Your task to perform on an android device: turn on improve location accuracy Image 0: 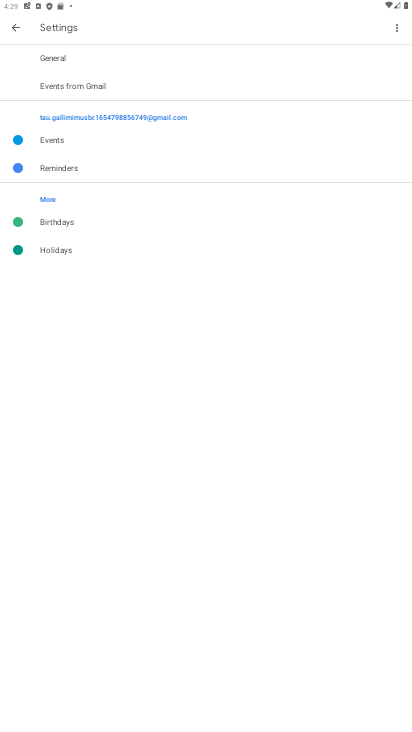
Step 0: press home button
Your task to perform on an android device: turn on improve location accuracy Image 1: 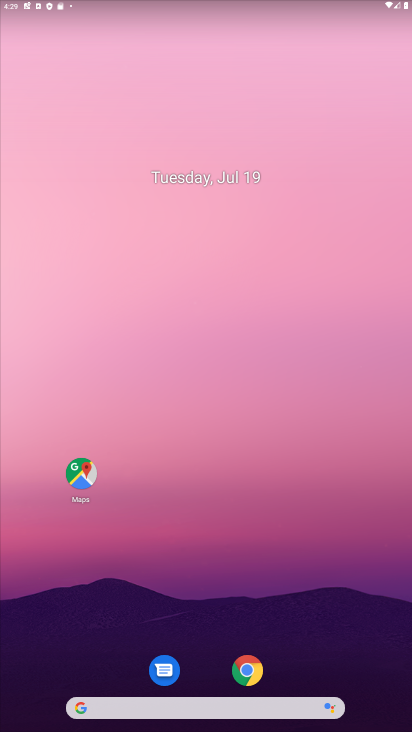
Step 1: drag from (292, 642) to (301, 165)
Your task to perform on an android device: turn on improve location accuracy Image 2: 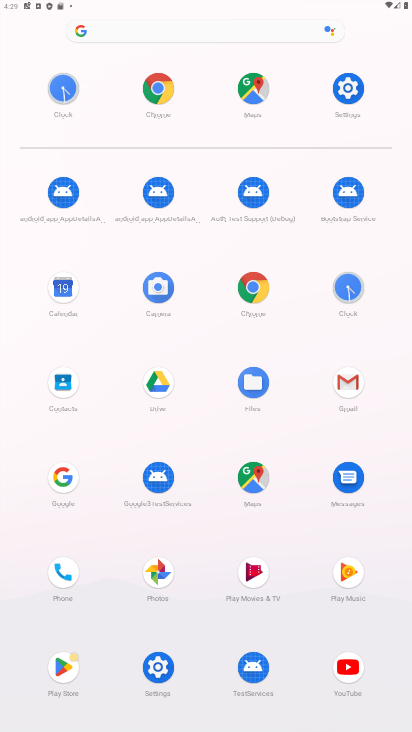
Step 2: click (345, 93)
Your task to perform on an android device: turn on improve location accuracy Image 3: 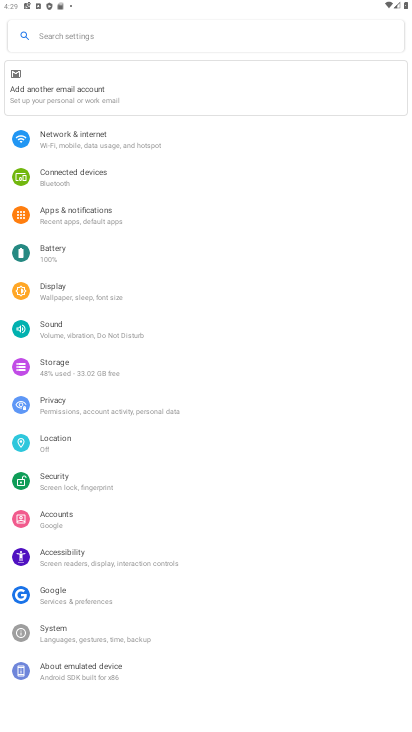
Step 3: click (73, 447)
Your task to perform on an android device: turn on improve location accuracy Image 4: 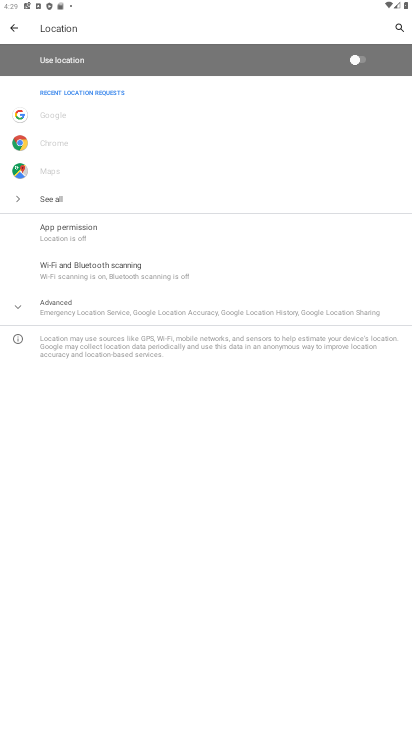
Step 4: click (119, 307)
Your task to perform on an android device: turn on improve location accuracy Image 5: 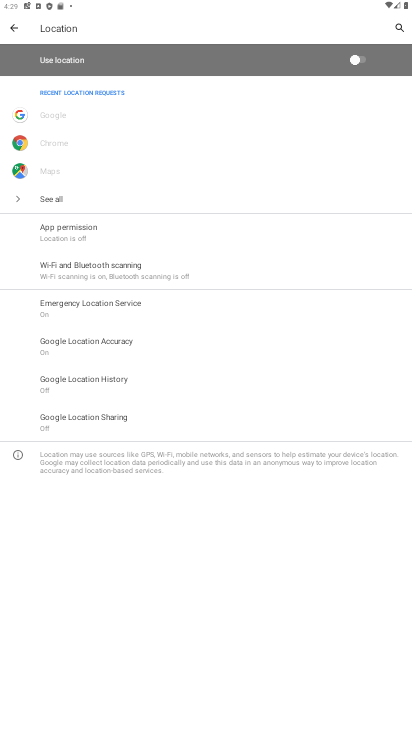
Step 5: click (117, 347)
Your task to perform on an android device: turn on improve location accuracy Image 6: 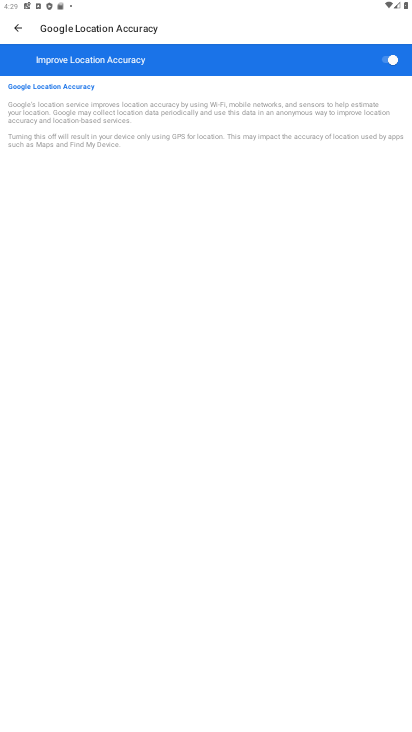
Step 6: task complete